Your task to perform on an android device: Open the calendar and show me this week's events? Image 0: 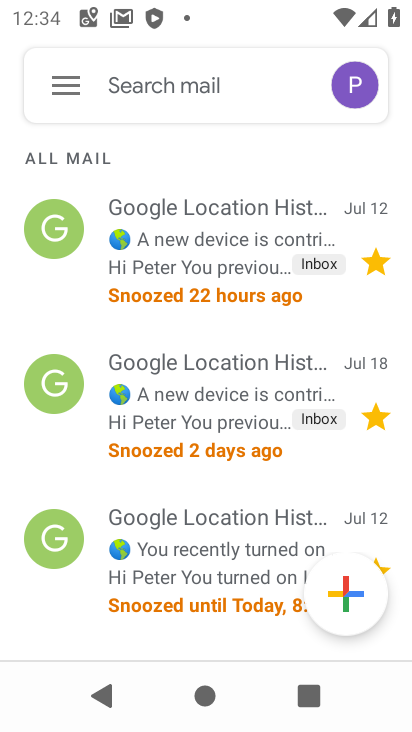
Step 0: press back button
Your task to perform on an android device: Open the calendar and show me this week's events? Image 1: 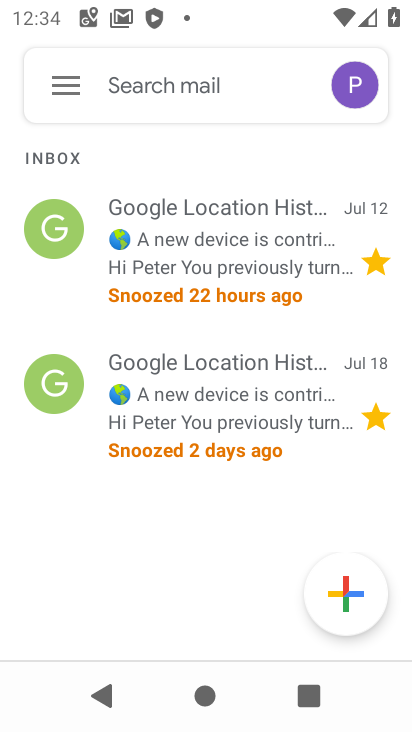
Step 1: press back button
Your task to perform on an android device: Open the calendar and show me this week's events? Image 2: 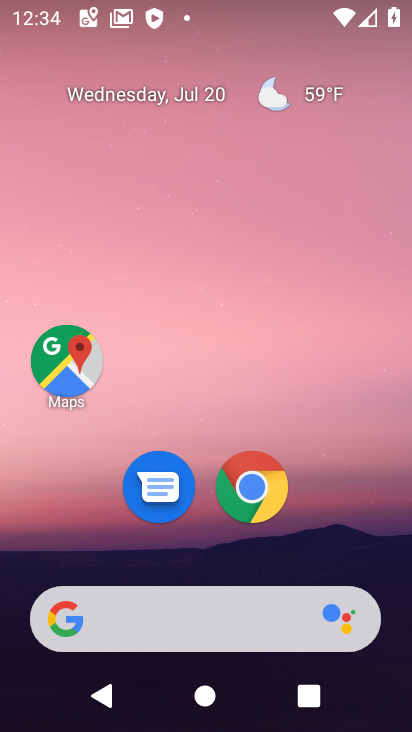
Step 2: drag from (205, 517) to (183, 105)
Your task to perform on an android device: Open the calendar and show me this week's events? Image 3: 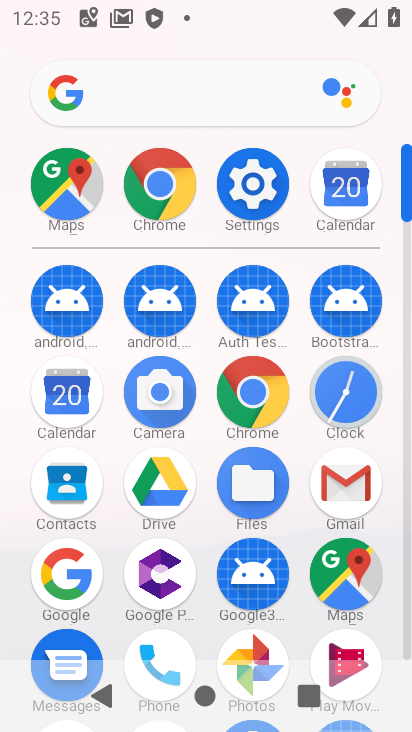
Step 3: click (52, 397)
Your task to perform on an android device: Open the calendar and show me this week's events? Image 4: 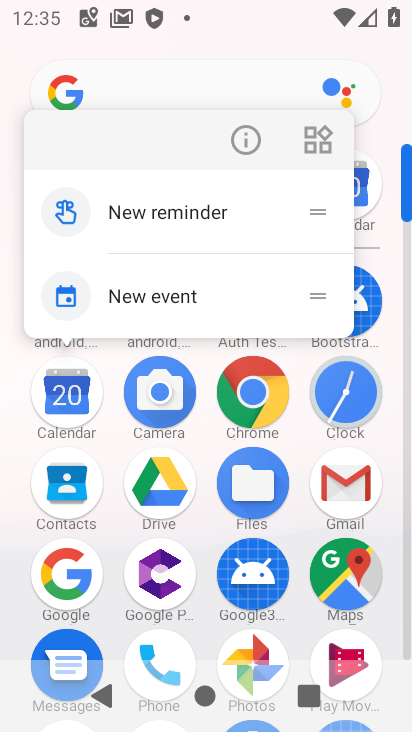
Step 4: click (74, 400)
Your task to perform on an android device: Open the calendar and show me this week's events? Image 5: 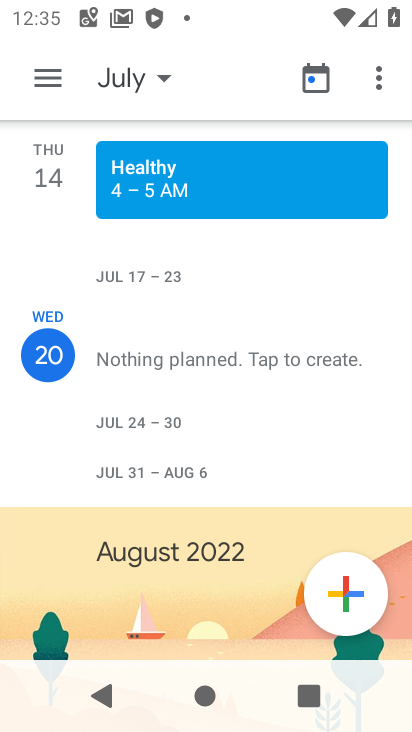
Step 5: task complete